Your task to perform on an android device: make emails show in primary in the gmail app Image 0: 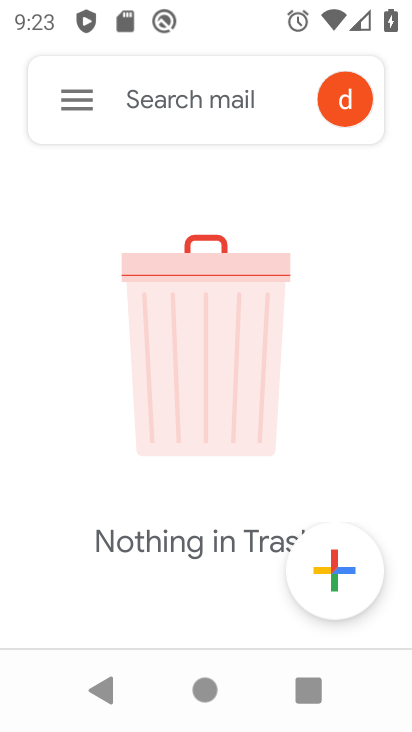
Step 0: press home button
Your task to perform on an android device: make emails show in primary in the gmail app Image 1: 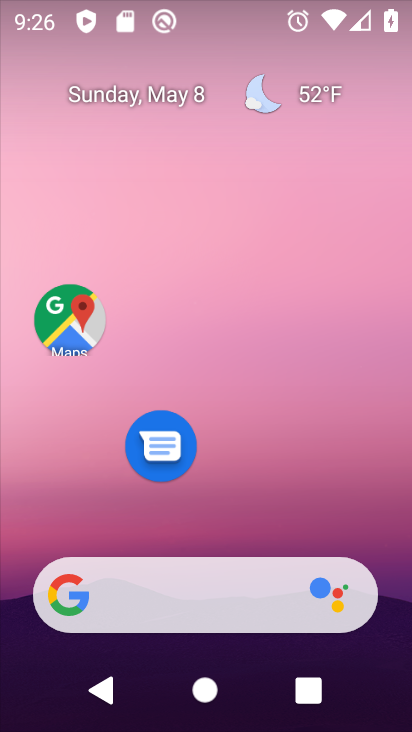
Step 1: drag from (326, 464) to (332, 76)
Your task to perform on an android device: make emails show in primary in the gmail app Image 2: 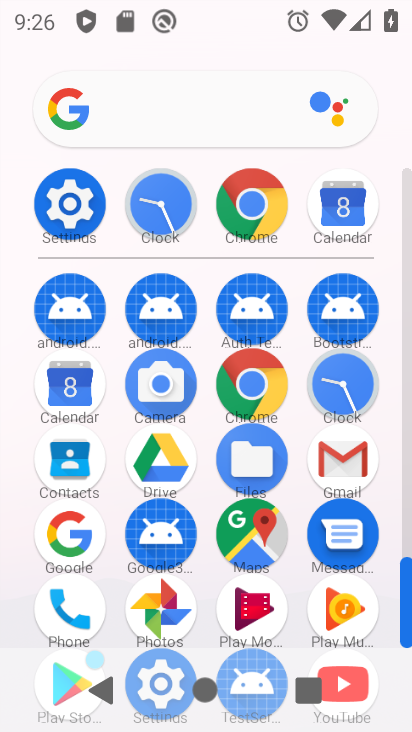
Step 2: click (348, 450)
Your task to perform on an android device: make emails show in primary in the gmail app Image 3: 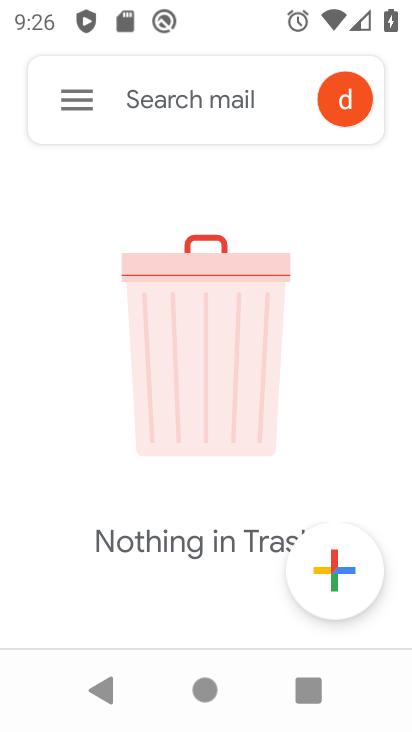
Step 3: click (63, 104)
Your task to perform on an android device: make emails show in primary in the gmail app Image 4: 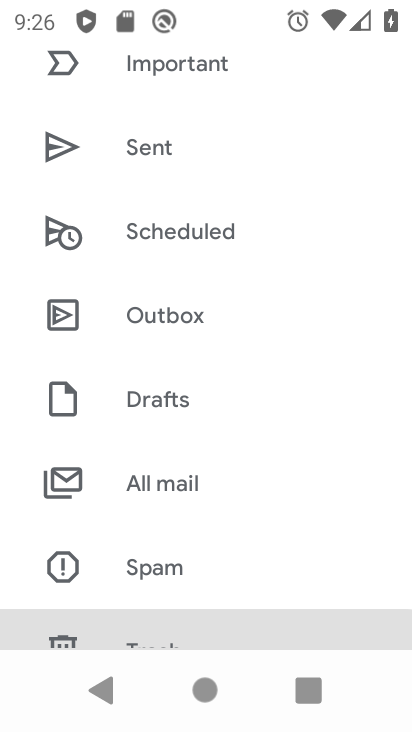
Step 4: task complete